Your task to perform on an android device: Turn off the flashlight Image 0: 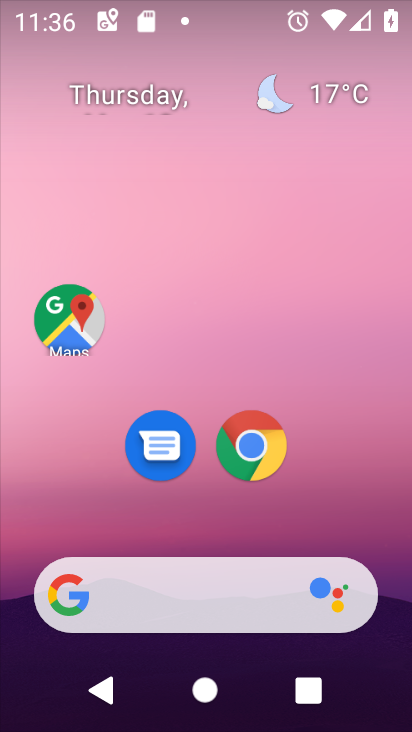
Step 0: drag from (205, 552) to (259, 208)
Your task to perform on an android device: Turn off the flashlight Image 1: 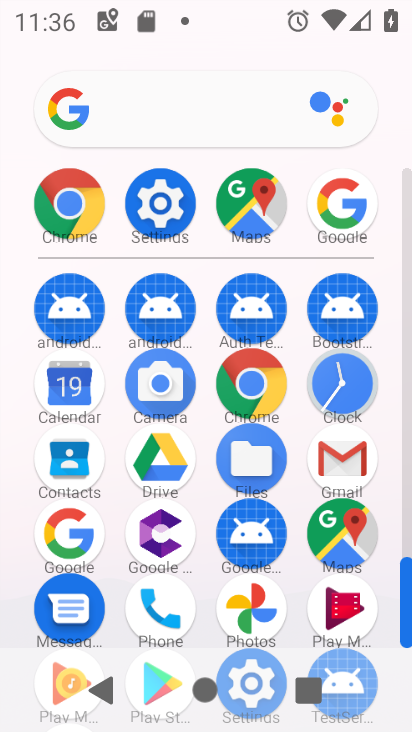
Step 1: click (165, 208)
Your task to perform on an android device: Turn off the flashlight Image 2: 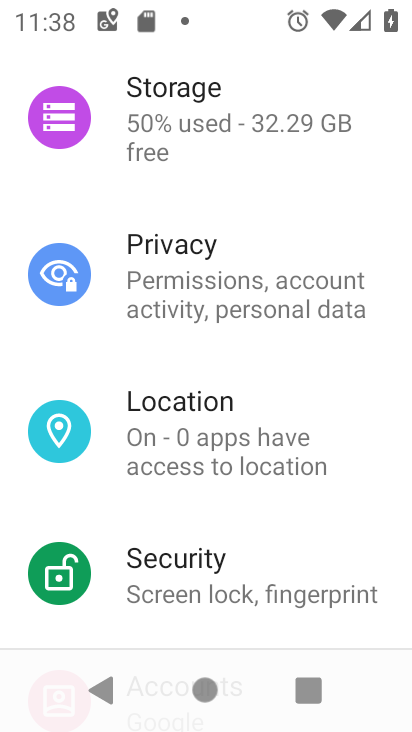
Step 2: task complete